Your task to perform on an android device: Play the last video I watched on Youtube Image 0: 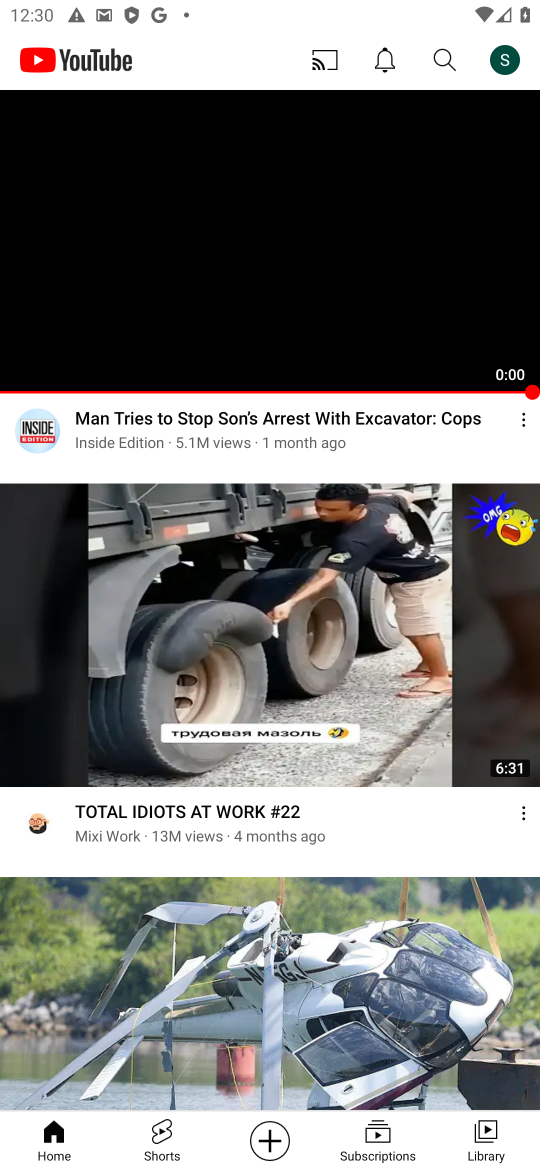
Step 0: task complete